Your task to perform on an android device: See recent photos Image 0: 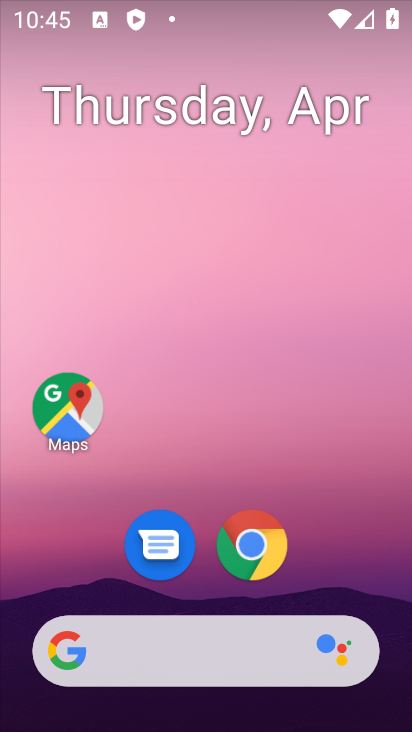
Step 0: drag from (147, 485) to (331, 158)
Your task to perform on an android device: See recent photos Image 1: 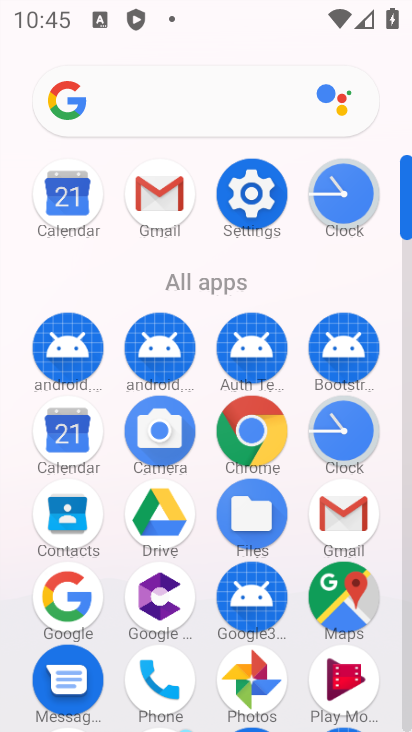
Step 1: click (256, 661)
Your task to perform on an android device: See recent photos Image 2: 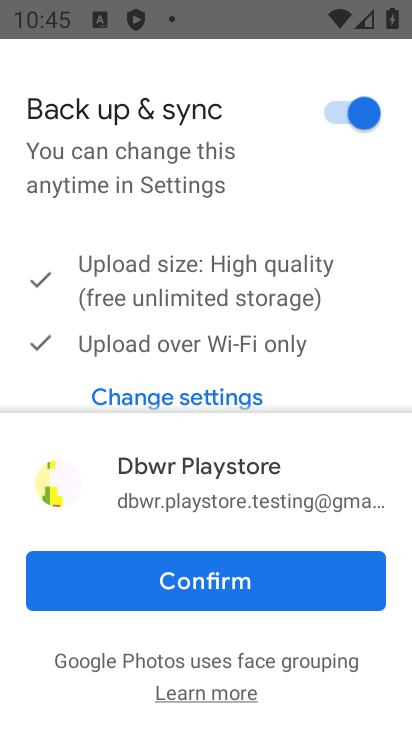
Step 2: click (253, 580)
Your task to perform on an android device: See recent photos Image 3: 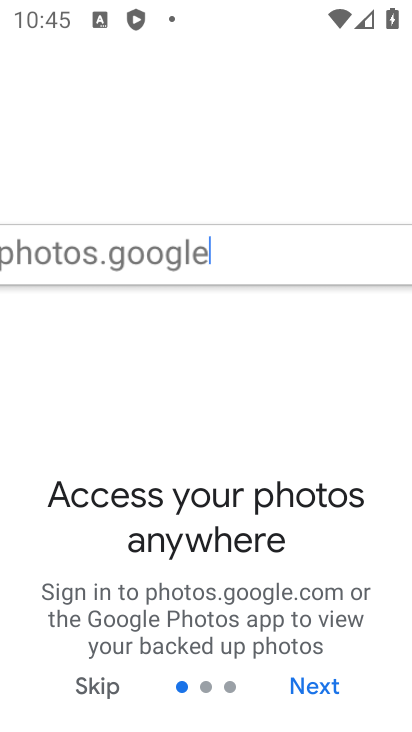
Step 3: click (106, 675)
Your task to perform on an android device: See recent photos Image 4: 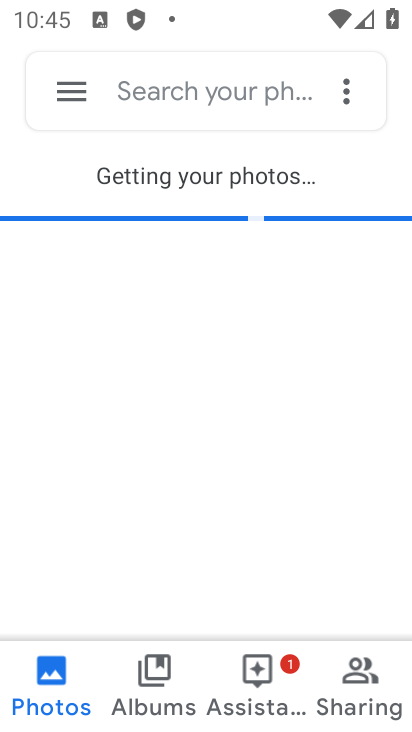
Step 4: click (33, 672)
Your task to perform on an android device: See recent photos Image 5: 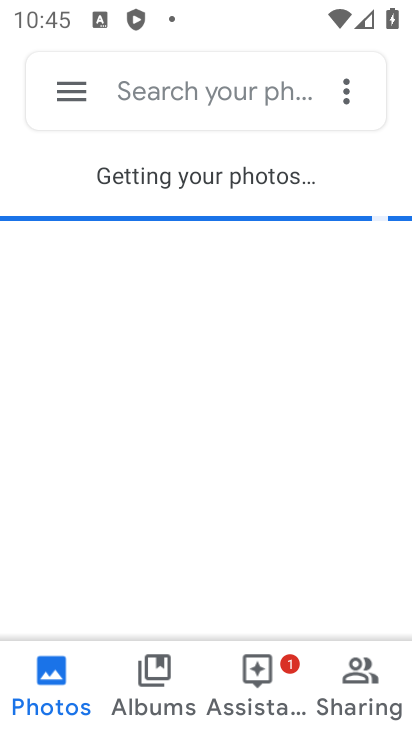
Step 5: task complete